Your task to perform on an android device: uninstall "Pluto TV - Live TV and Movies" Image 0: 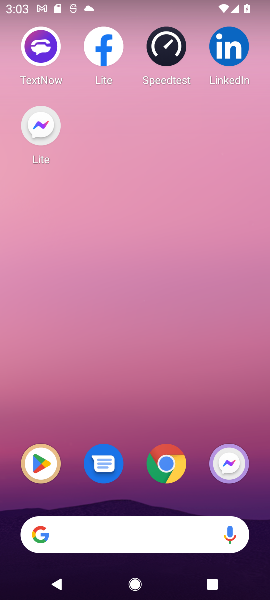
Step 0: drag from (131, 529) to (129, 81)
Your task to perform on an android device: uninstall "Pluto TV - Live TV and Movies" Image 1: 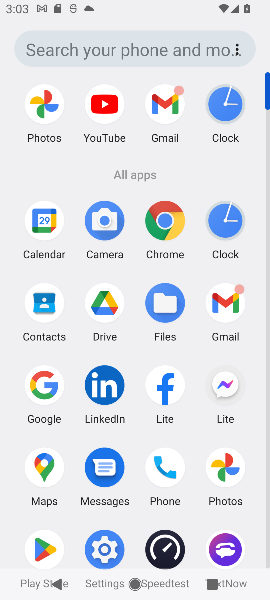
Step 1: drag from (138, 509) to (129, 331)
Your task to perform on an android device: uninstall "Pluto TV - Live TV and Movies" Image 2: 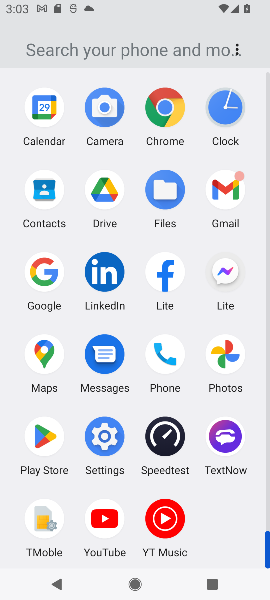
Step 2: click (43, 442)
Your task to perform on an android device: uninstall "Pluto TV - Live TV and Movies" Image 3: 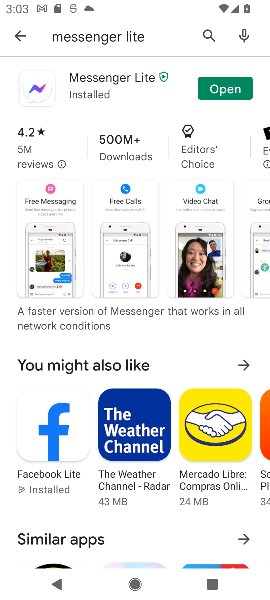
Step 3: click (208, 33)
Your task to perform on an android device: uninstall "Pluto TV - Live TV and Movies" Image 4: 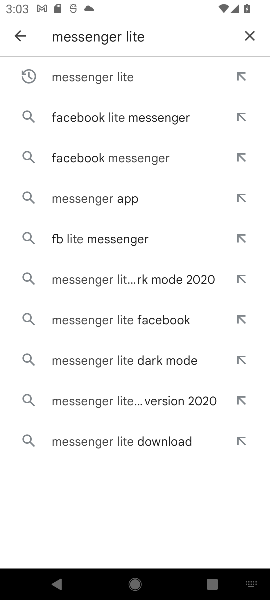
Step 4: click (249, 39)
Your task to perform on an android device: uninstall "Pluto TV - Live TV and Movies" Image 5: 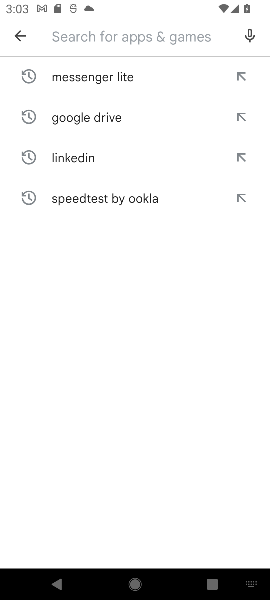
Step 5: click (112, 30)
Your task to perform on an android device: uninstall "Pluto TV - Live TV and Movies" Image 6: 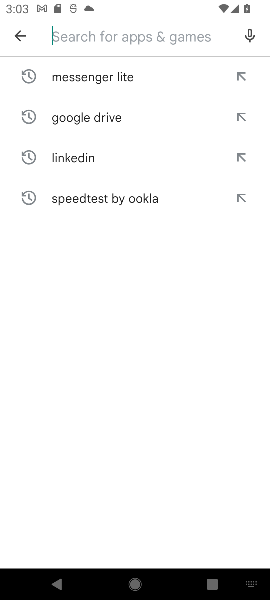
Step 6: type "Pluto TV - Live TV and Movies"
Your task to perform on an android device: uninstall "Pluto TV - Live TV and Movies" Image 7: 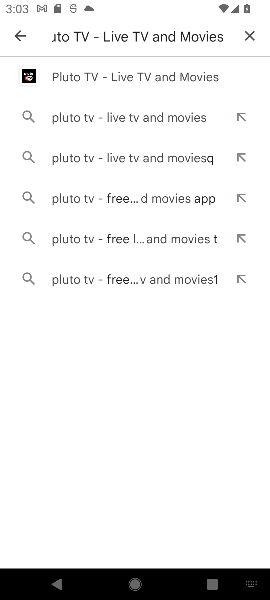
Step 7: click (162, 75)
Your task to perform on an android device: uninstall "Pluto TV - Live TV and Movies" Image 8: 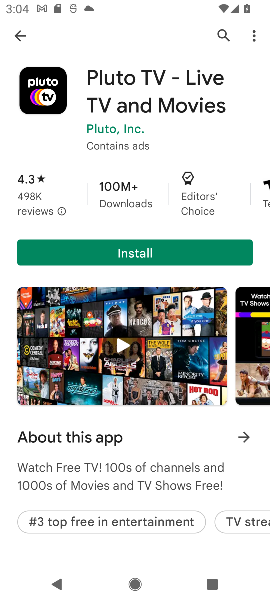
Step 8: task complete